Your task to perform on an android device: toggle wifi Image 0: 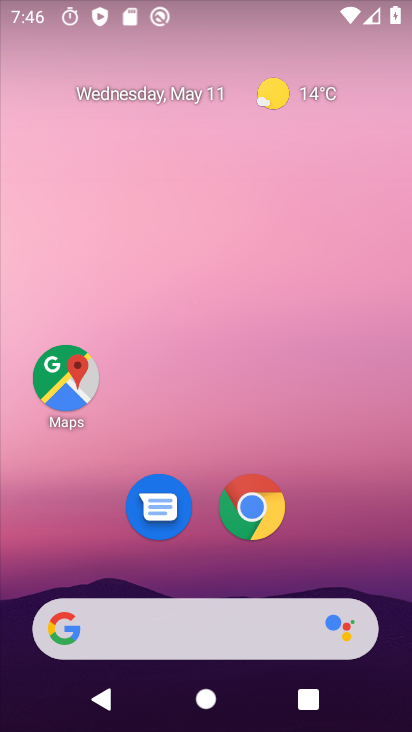
Step 0: drag from (359, 463) to (344, 94)
Your task to perform on an android device: toggle wifi Image 1: 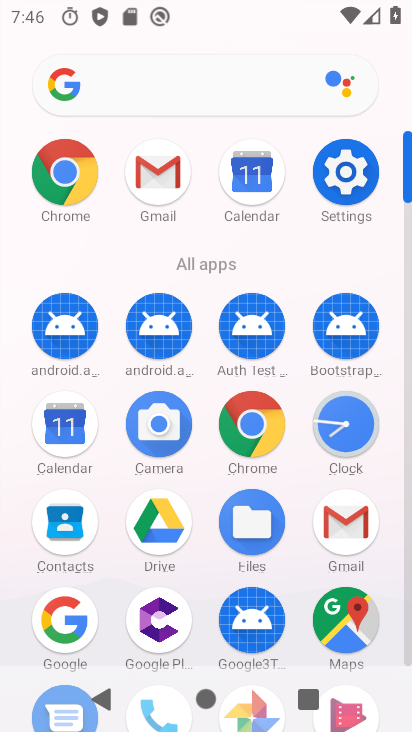
Step 1: click (341, 168)
Your task to perform on an android device: toggle wifi Image 2: 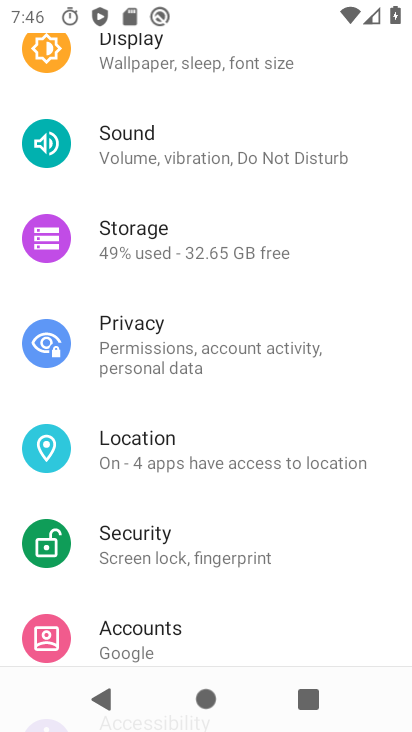
Step 2: drag from (204, 140) to (230, 548)
Your task to perform on an android device: toggle wifi Image 3: 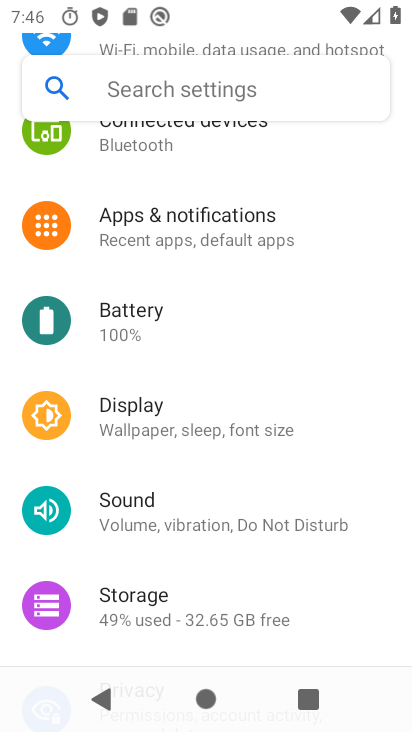
Step 3: drag from (191, 181) to (168, 586)
Your task to perform on an android device: toggle wifi Image 4: 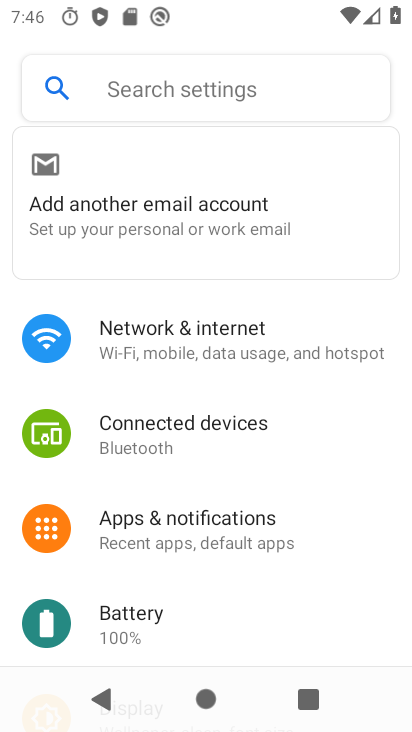
Step 4: drag from (131, 210) to (143, 591)
Your task to perform on an android device: toggle wifi Image 5: 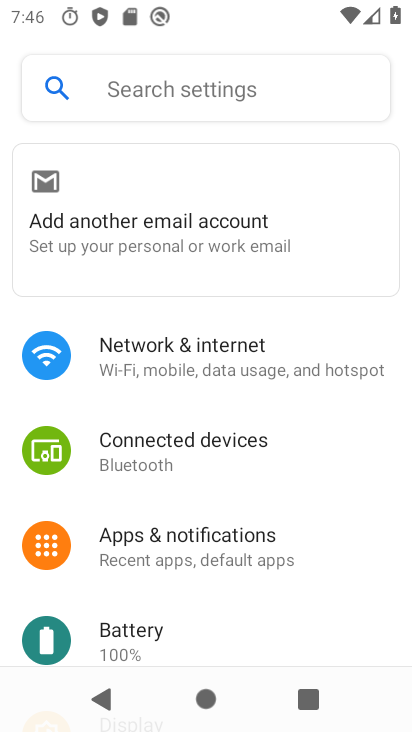
Step 5: click (143, 353)
Your task to perform on an android device: toggle wifi Image 6: 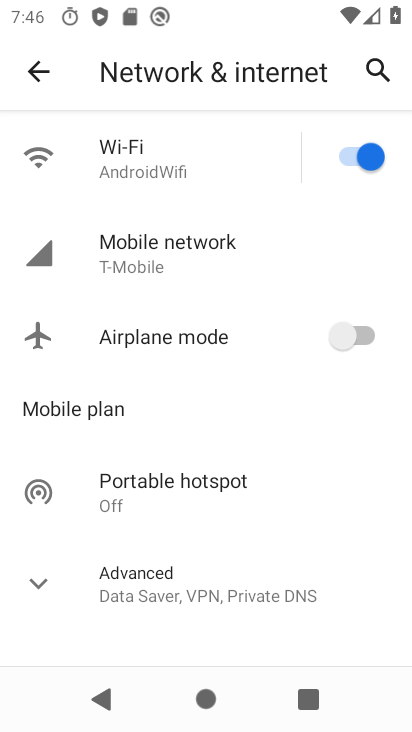
Step 6: click (355, 155)
Your task to perform on an android device: toggle wifi Image 7: 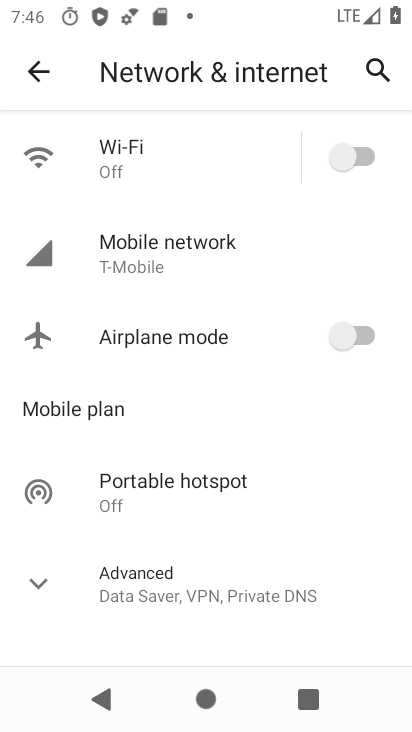
Step 7: task complete